Your task to perform on an android device: Open the Play Movies app and select the watchlist tab. Image 0: 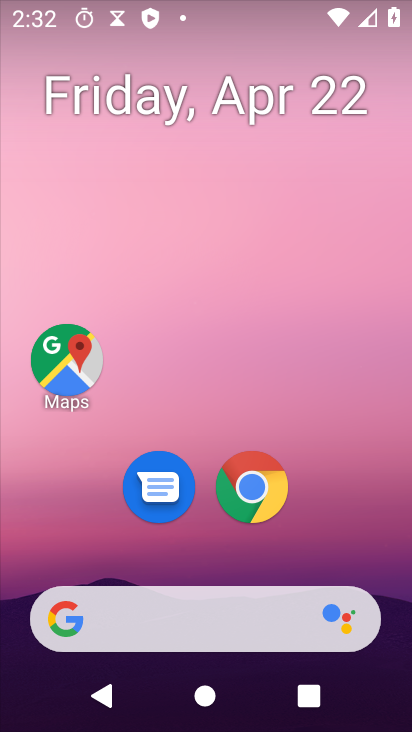
Step 0: drag from (319, 225) to (351, 109)
Your task to perform on an android device: Open the Play Movies app and select the watchlist tab. Image 1: 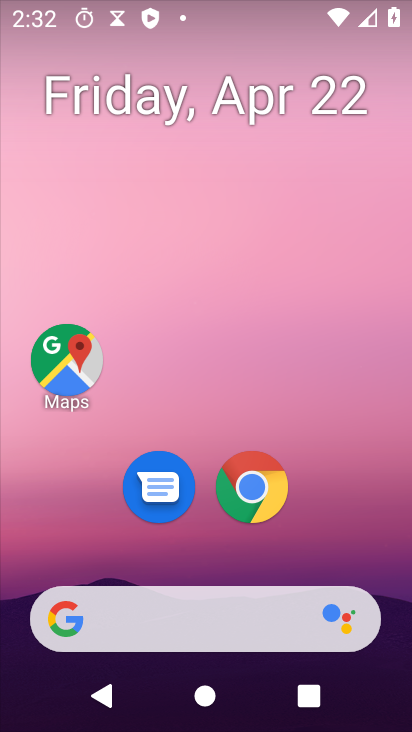
Step 1: drag from (189, 600) to (349, 124)
Your task to perform on an android device: Open the Play Movies app and select the watchlist tab. Image 2: 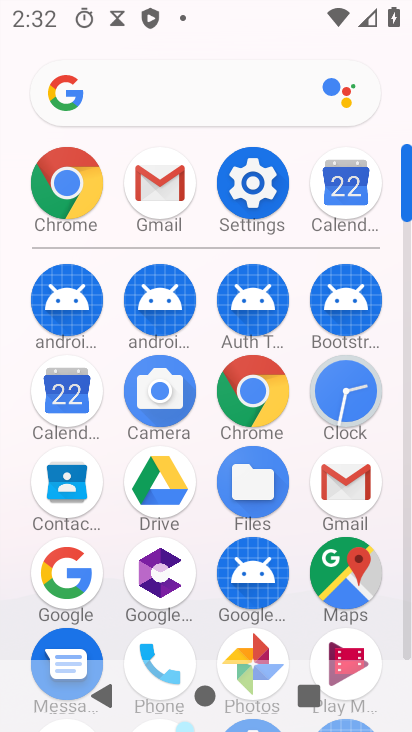
Step 2: drag from (209, 562) to (344, 206)
Your task to perform on an android device: Open the Play Movies app and select the watchlist tab. Image 3: 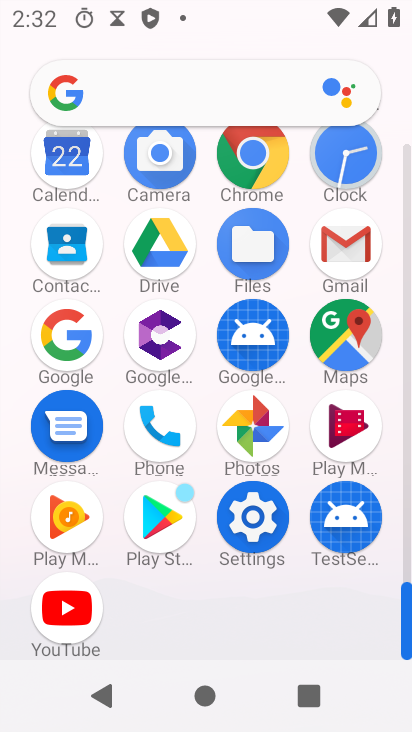
Step 3: click (346, 435)
Your task to perform on an android device: Open the Play Movies app and select the watchlist tab. Image 4: 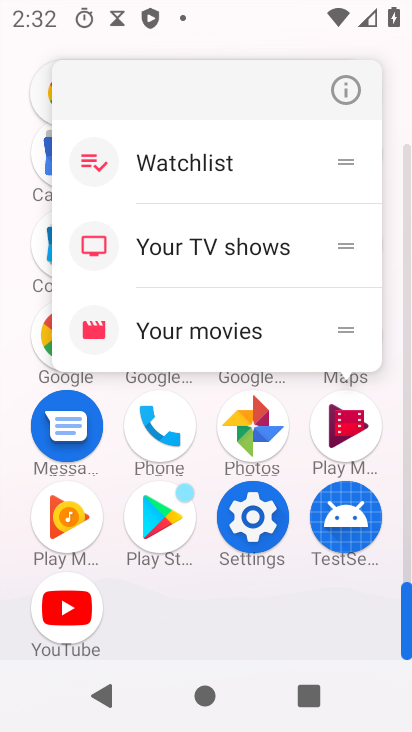
Step 4: click (348, 426)
Your task to perform on an android device: Open the Play Movies app and select the watchlist tab. Image 5: 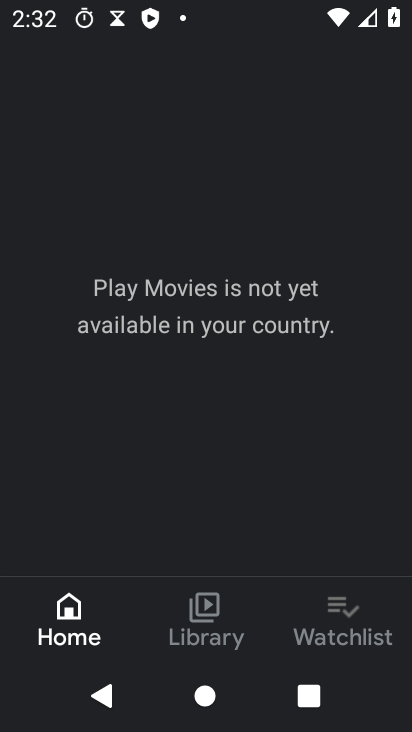
Step 5: click (337, 632)
Your task to perform on an android device: Open the Play Movies app and select the watchlist tab. Image 6: 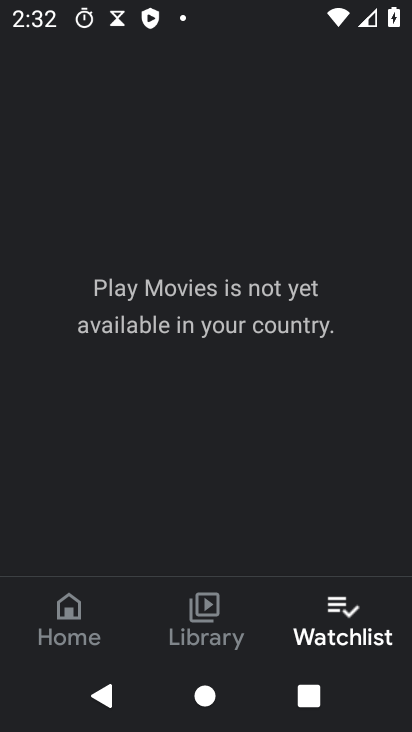
Step 6: task complete